Your task to perform on an android device: change text size in settings app Image 0: 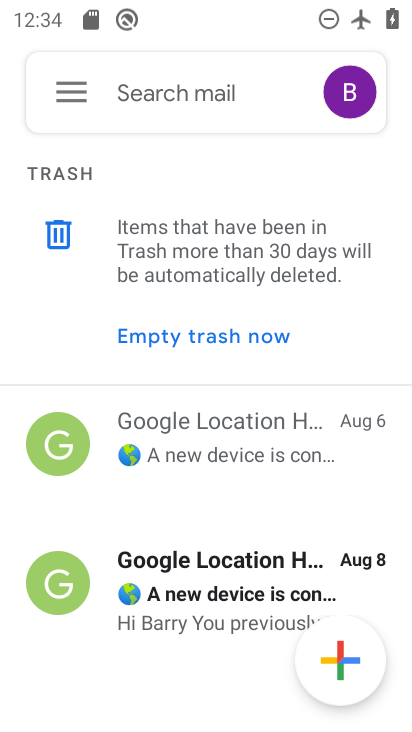
Step 0: press home button
Your task to perform on an android device: change text size in settings app Image 1: 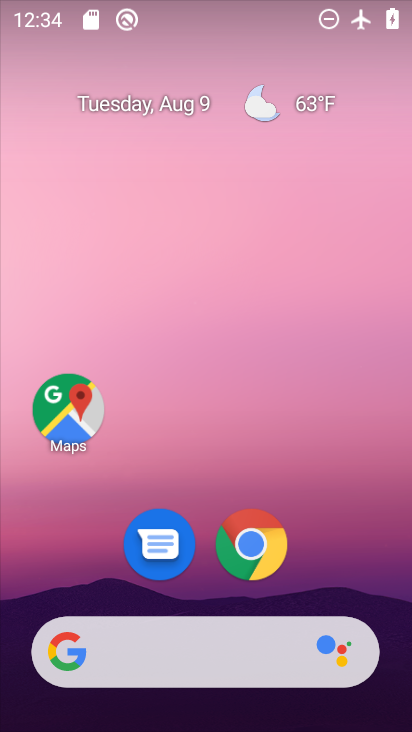
Step 1: drag from (247, 284) to (334, 216)
Your task to perform on an android device: change text size in settings app Image 2: 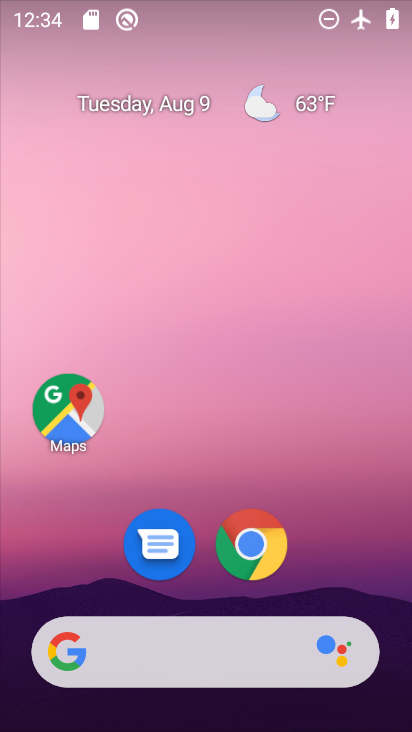
Step 2: drag from (251, 674) to (301, 3)
Your task to perform on an android device: change text size in settings app Image 3: 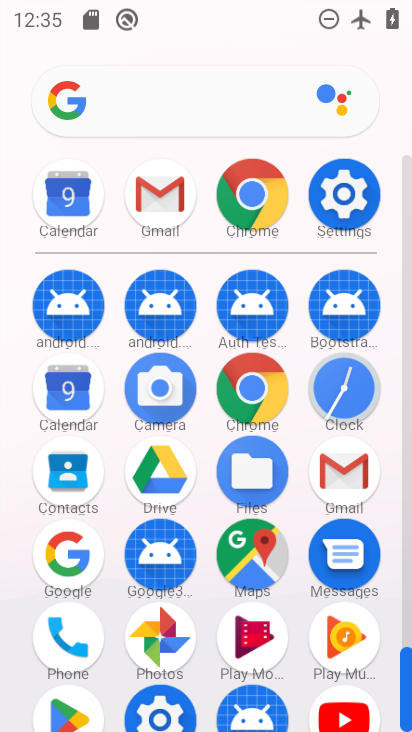
Step 3: click (346, 193)
Your task to perform on an android device: change text size in settings app Image 4: 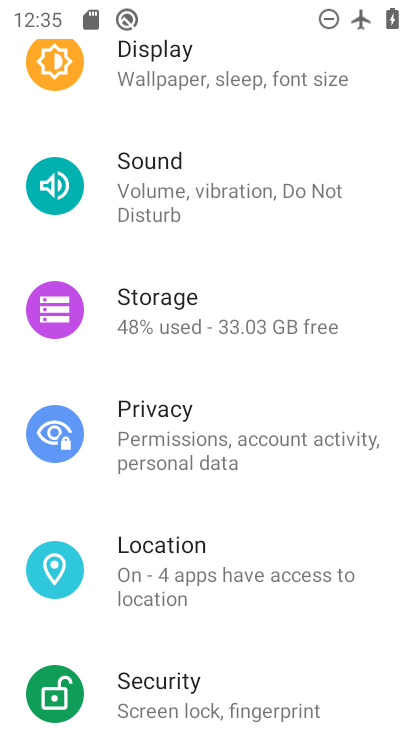
Step 4: drag from (212, 664) to (354, 444)
Your task to perform on an android device: change text size in settings app Image 5: 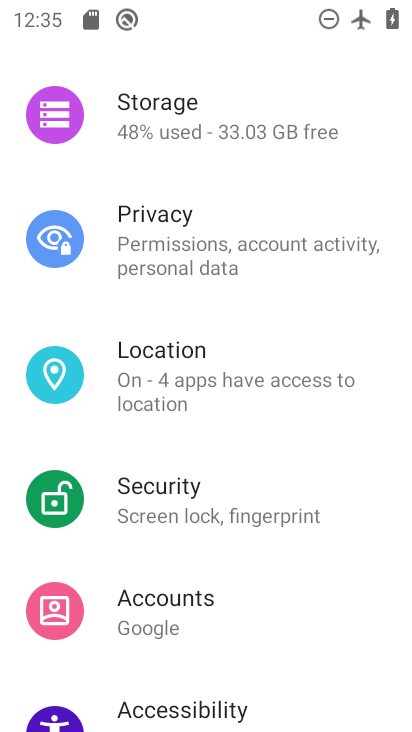
Step 5: drag from (244, 681) to (282, 558)
Your task to perform on an android device: change text size in settings app Image 6: 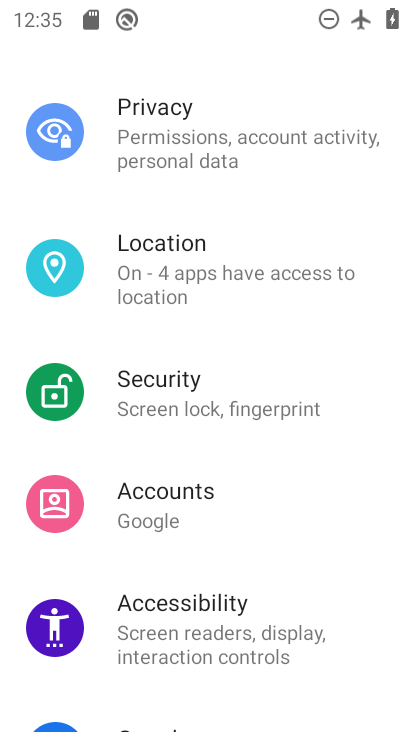
Step 6: click (217, 620)
Your task to perform on an android device: change text size in settings app Image 7: 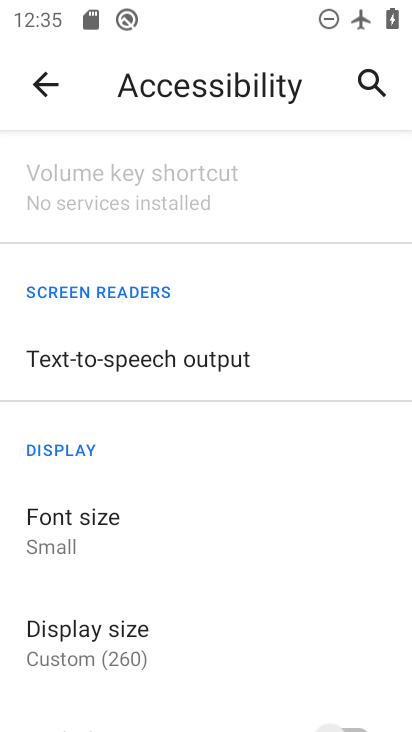
Step 7: click (76, 537)
Your task to perform on an android device: change text size in settings app Image 8: 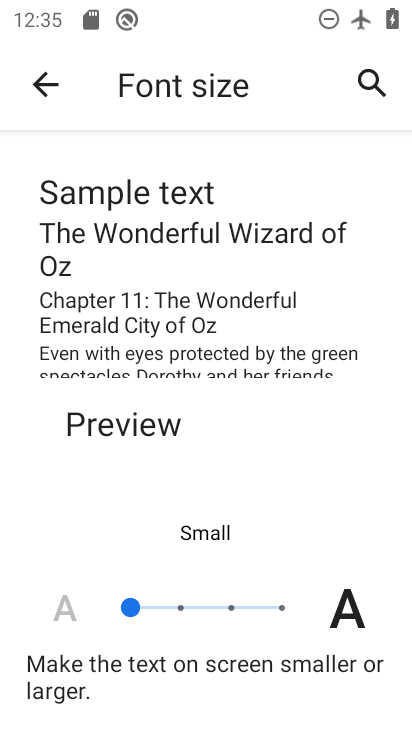
Step 8: click (175, 599)
Your task to perform on an android device: change text size in settings app Image 9: 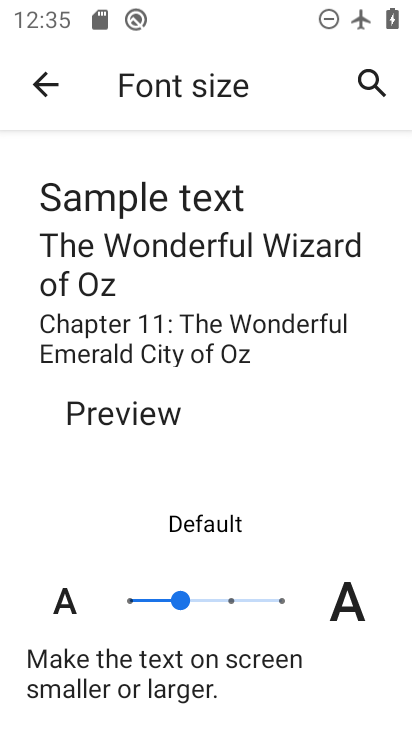
Step 9: task complete